Your task to perform on an android device: all mails in gmail Image 0: 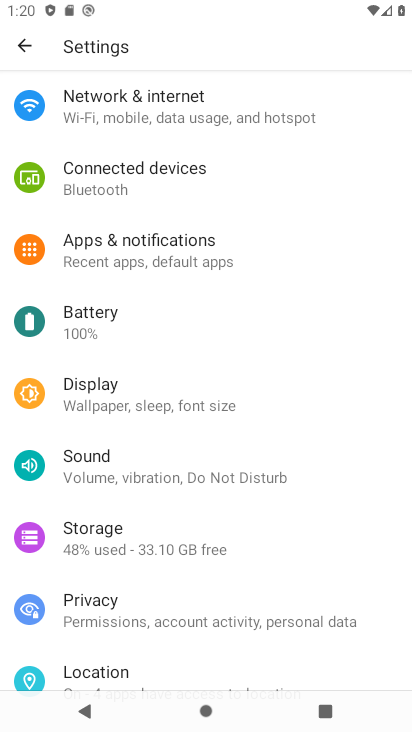
Step 0: drag from (231, 515) to (278, 198)
Your task to perform on an android device: all mails in gmail Image 1: 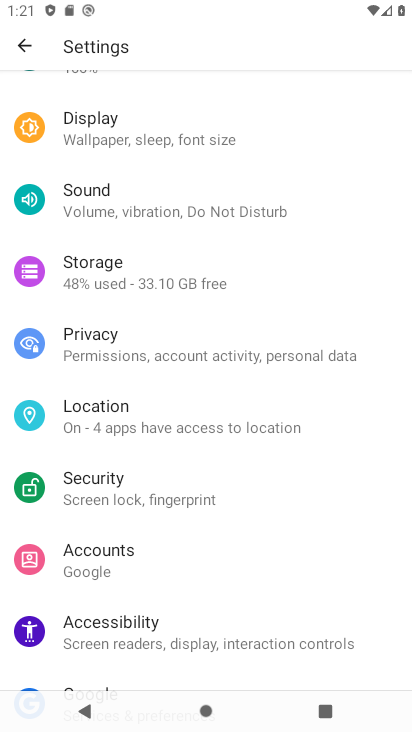
Step 1: press home button
Your task to perform on an android device: all mails in gmail Image 2: 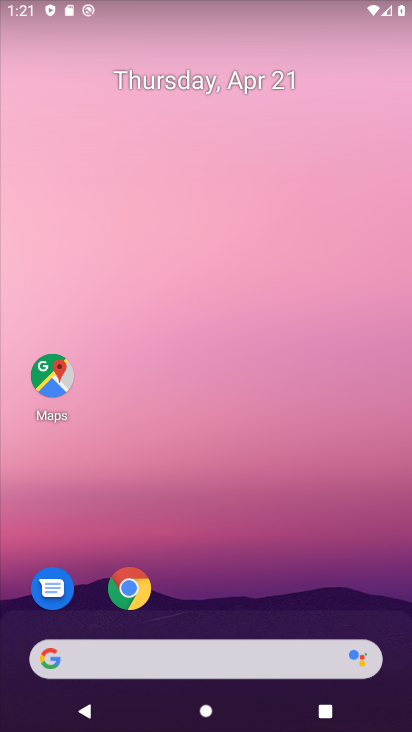
Step 2: drag from (230, 617) to (295, 203)
Your task to perform on an android device: all mails in gmail Image 3: 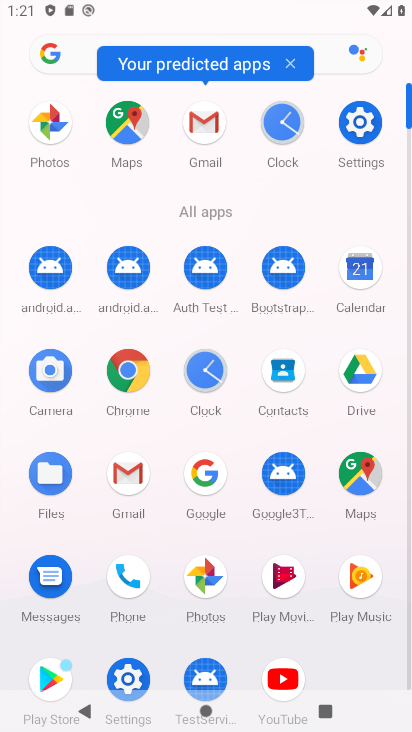
Step 3: click (130, 491)
Your task to perform on an android device: all mails in gmail Image 4: 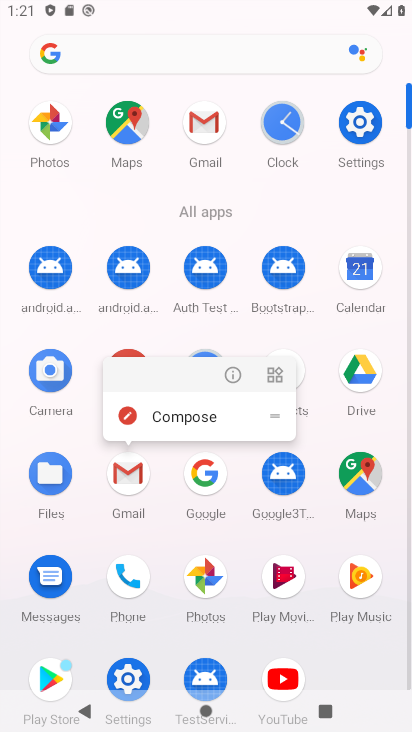
Step 4: click (141, 484)
Your task to perform on an android device: all mails in gmail Image 5: 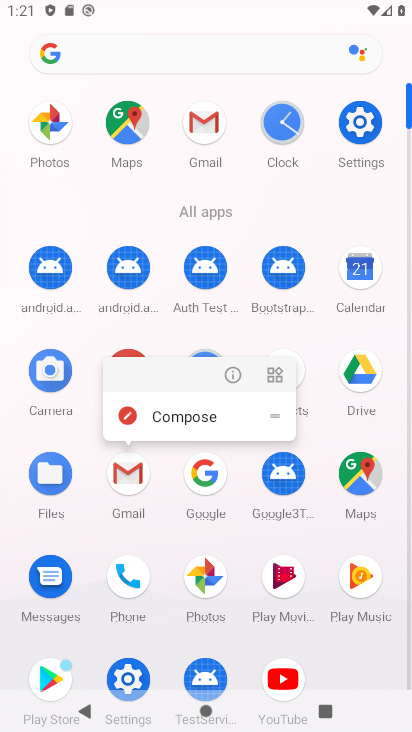
Step 5: click (125, 479)
Your task to perform on an android device: all mails in gmail Image 6: 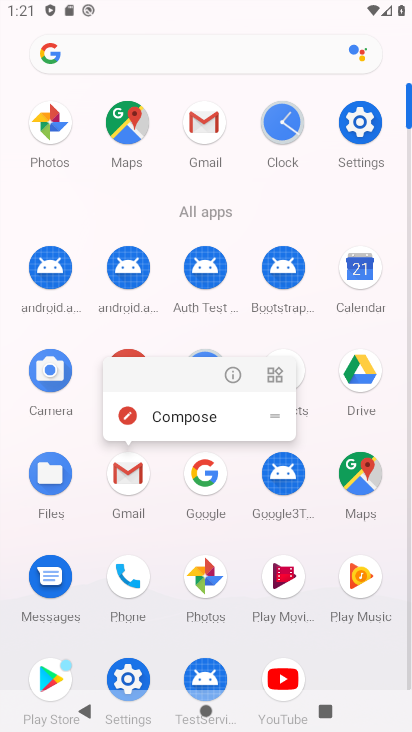
Step 6: click (124, 489)
Your task to perform on an android device: all mails in gmail Image 7: 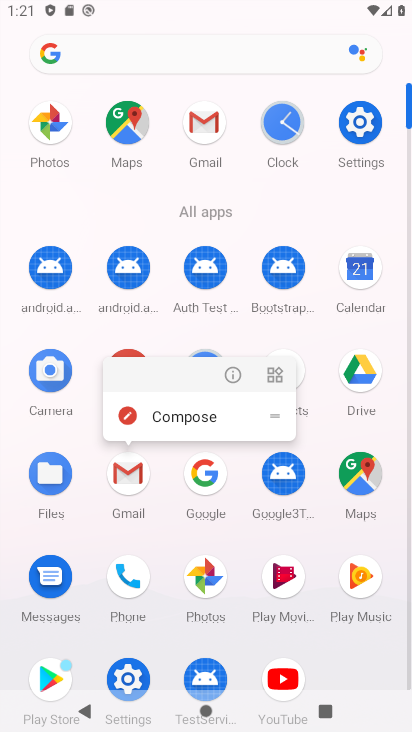
Step 7: click (129, 474)
Your task to perform on an android device: all mails in gmail Image 8: 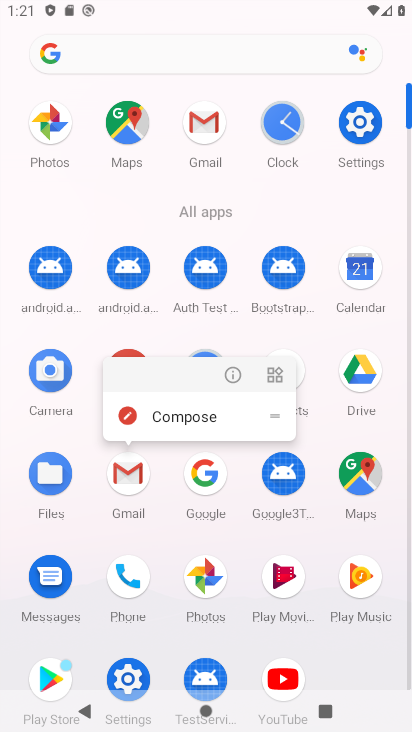
Step 8: click (123, 465)
Your task to perform on an android device: all mails in gmail Image 9: 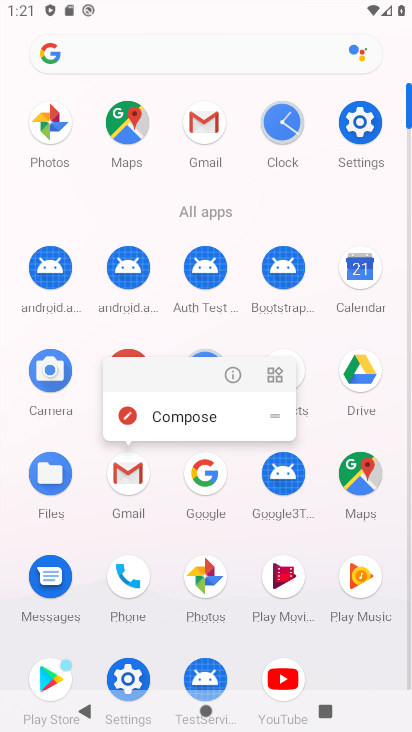
Step 9: click (113, 464)
Your task to perform on an android device: all mails in gmail Image 10: 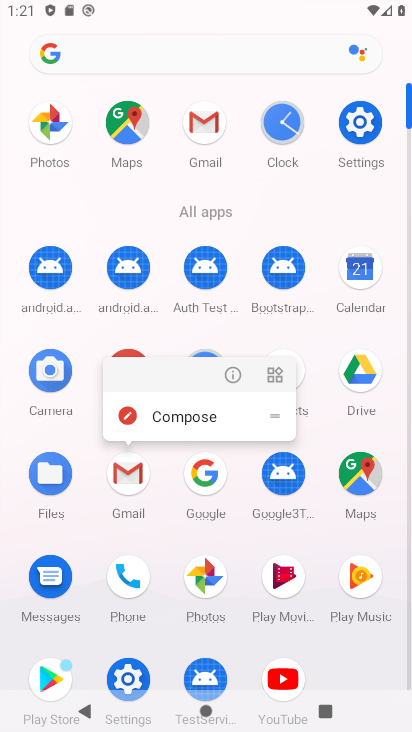
Step 10: click (145, 466)
Your task to perform on an android device: all mails in gmail Image 11: 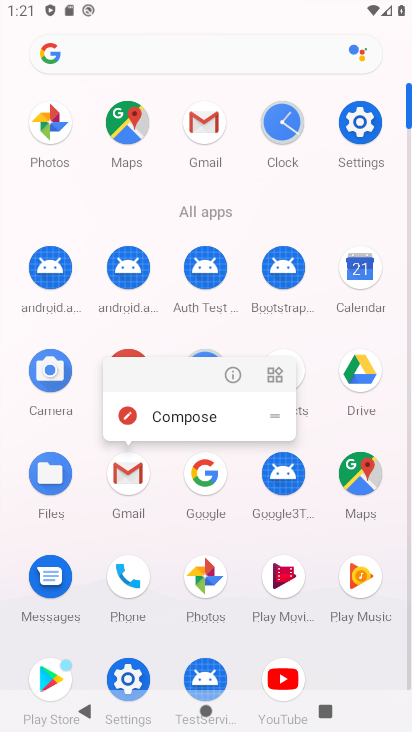
Step 11: click (135, 475)
Your task to perform on an android device: all mails in gmail Image 12: 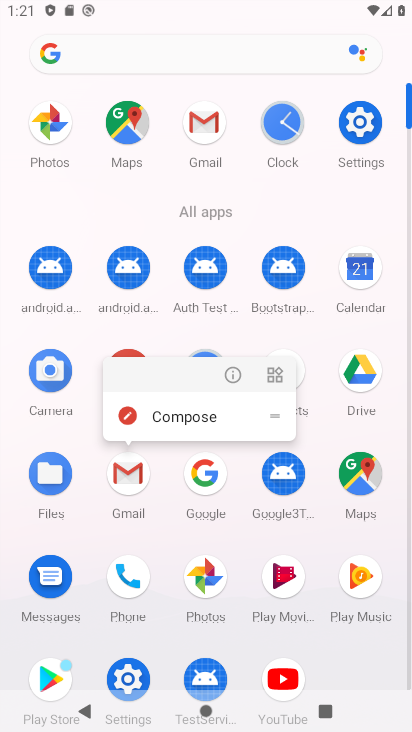
Step 12: click (138, 476)
Your task to perform on an android device: all mails in gmail Image 13: 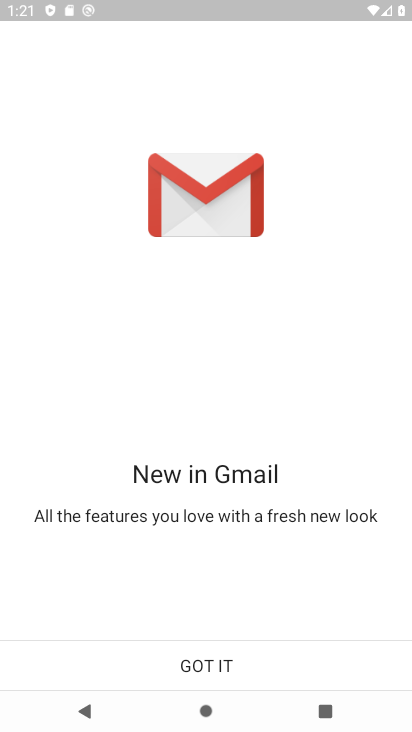
Step 13: click (138, 476)
Your task to perform on an android device: all mails in gmail Image 14: 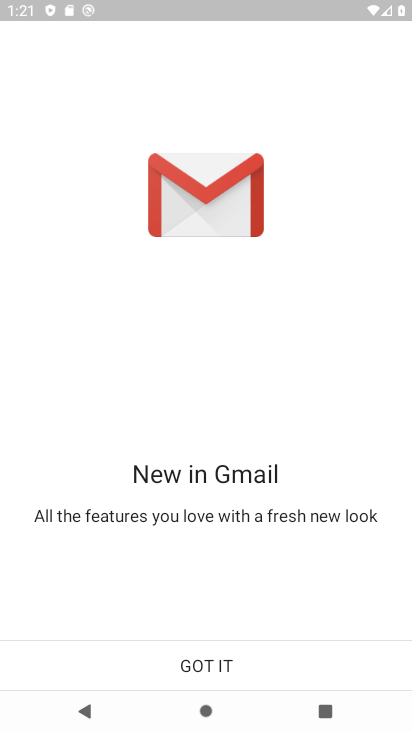
Step 14: click (222, 670)
Your task to perform on an android device: all mails in gmail Image 15: 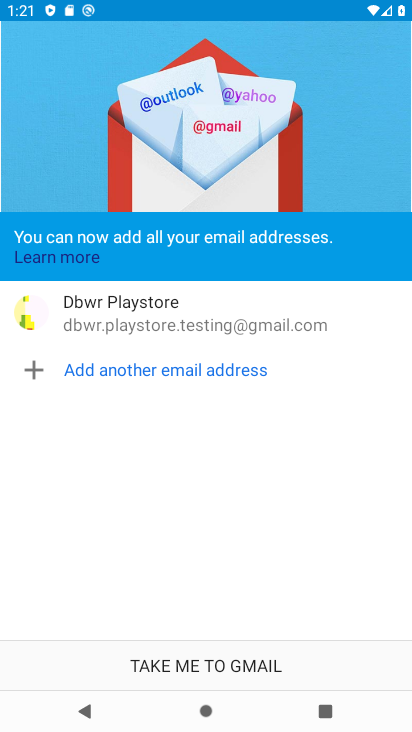
Step 15: click (219, 664)
Your task to perform on an android device: all mails in gmail Image 16: 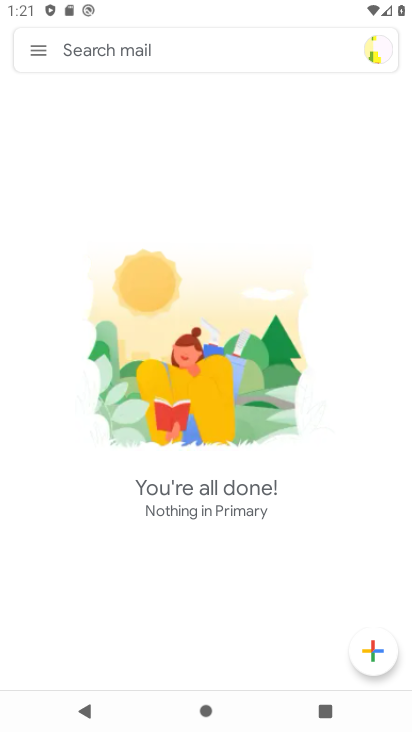
Step 16: click (29, 52)
Your task to perform on an android device: all mails in gmail Image 17: 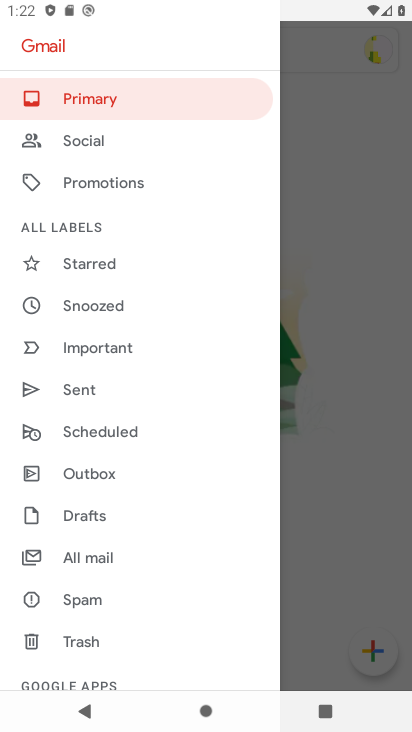
Step 17: click (83, 557)
Your task to perform on an android device: all mails in gmail Image 18: 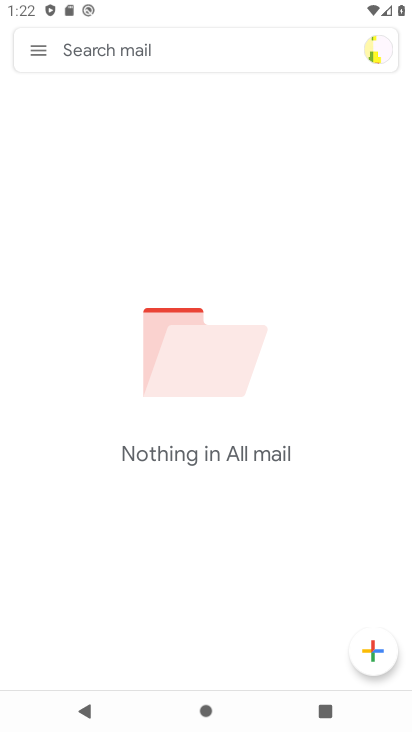
Step 18: task complete